Your task to perform on an android device: visit the assistant section in the google photos Image 0: 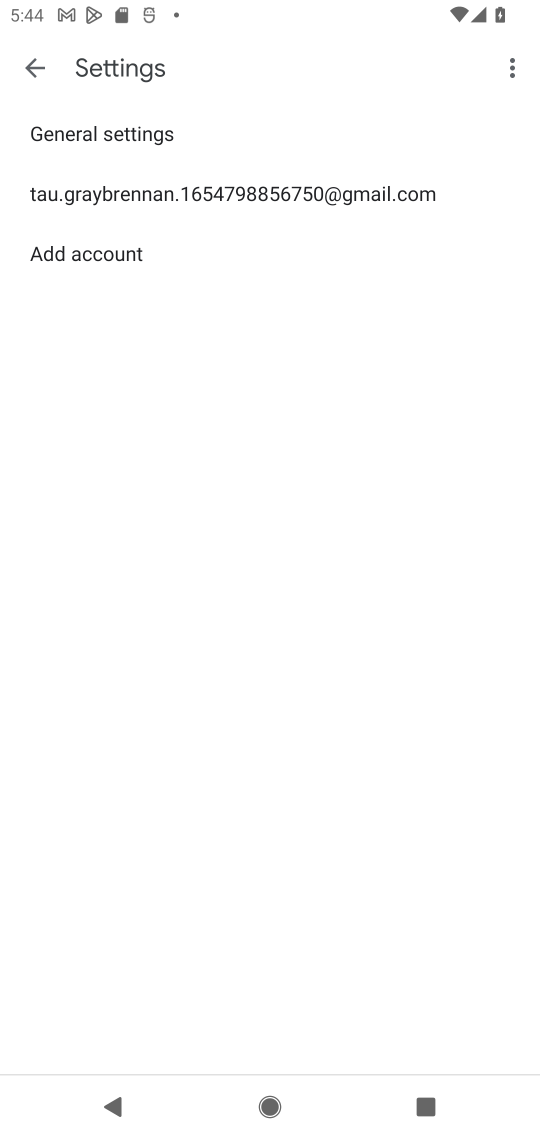
Step 0: press home button
Your task to perform on an android device: visit the assistant section in the google photos Image 1: 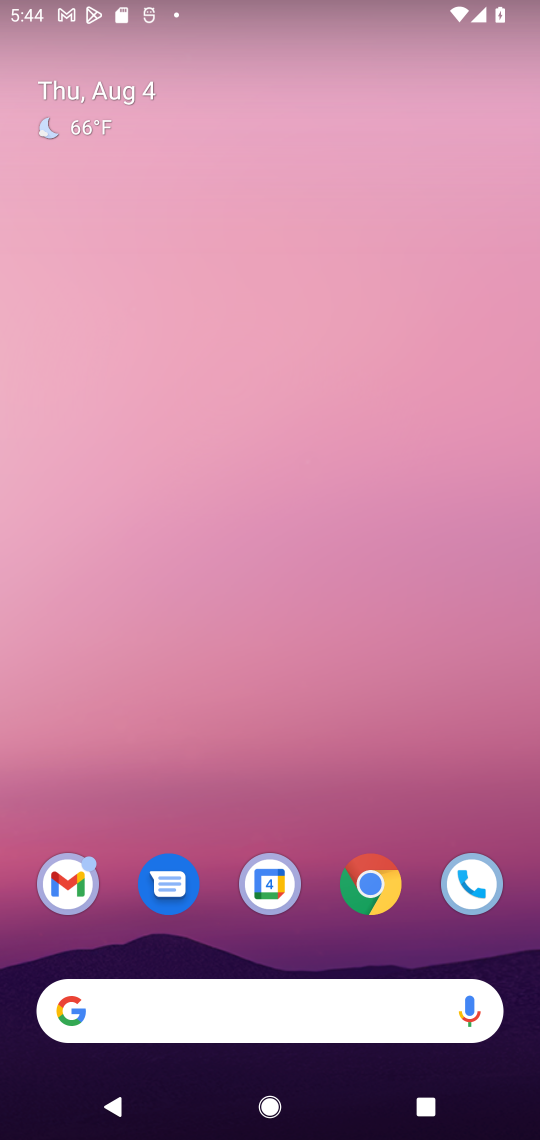
Step 1: drag from (199, 962) to (255, 251)
Your task to perform on an android device: visit the assistant section in the google photos Image 2: 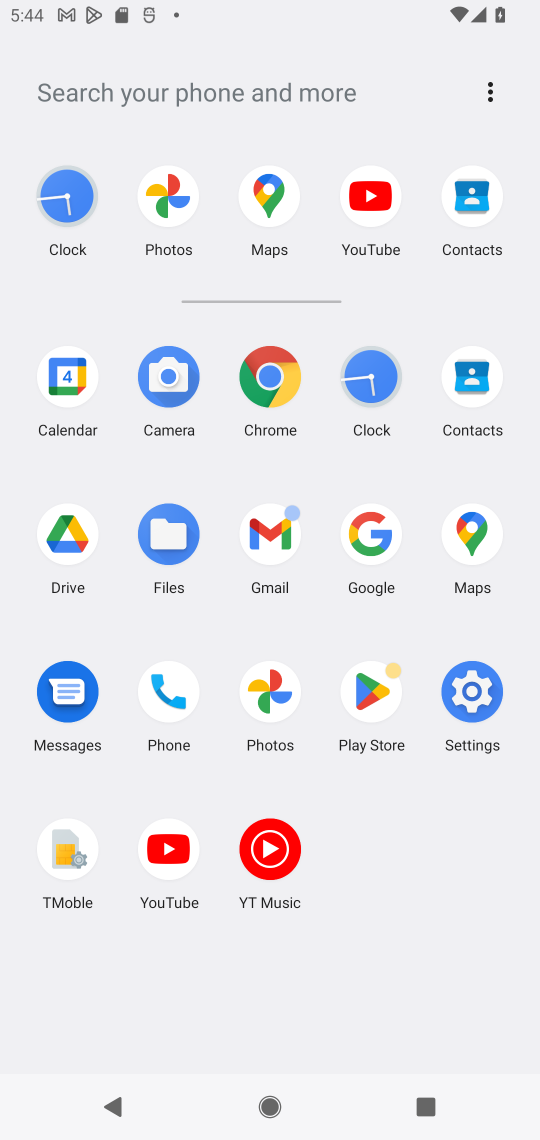
Step 2: click (294, 704)
Your task to perform on an android device: visit the assistant section in the google photos Image 3: 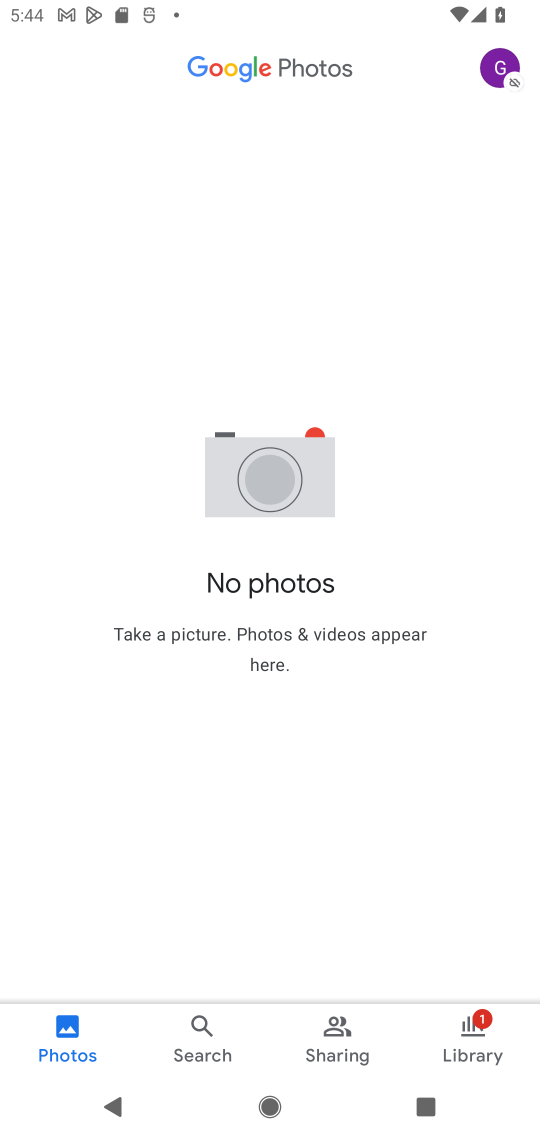
Step 3: task complete